Your task to perform on an android device: When is my next meeting? Image 0: 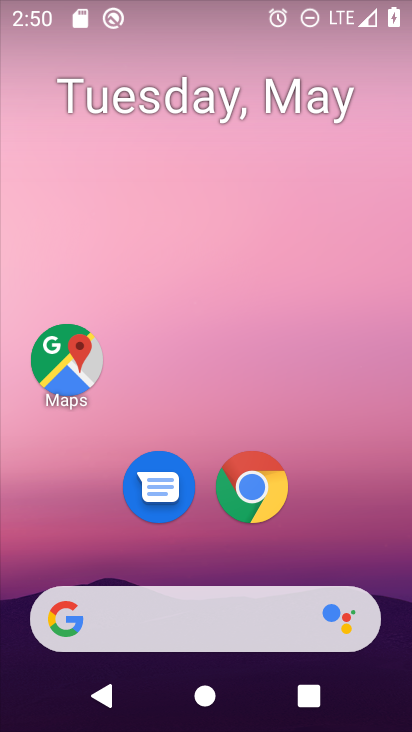
Step 0: drag from (35, 575) to (244, 172)
Your task to perform on an android device: When is my next meeting? Image 1: 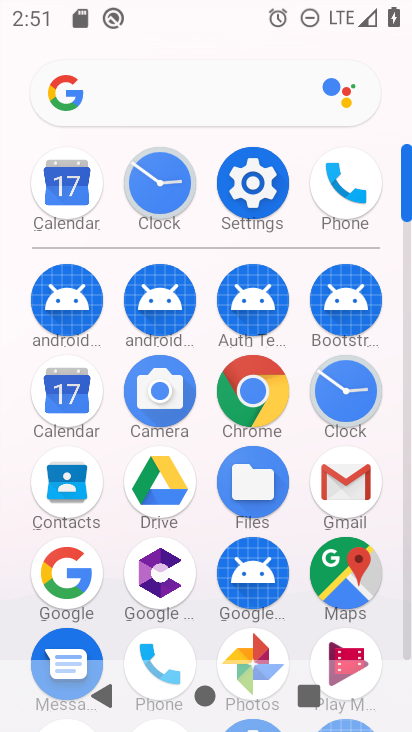
Step 1: click (242, 178)
Your task to perform on an android device: When is my next meeting? Image 2: 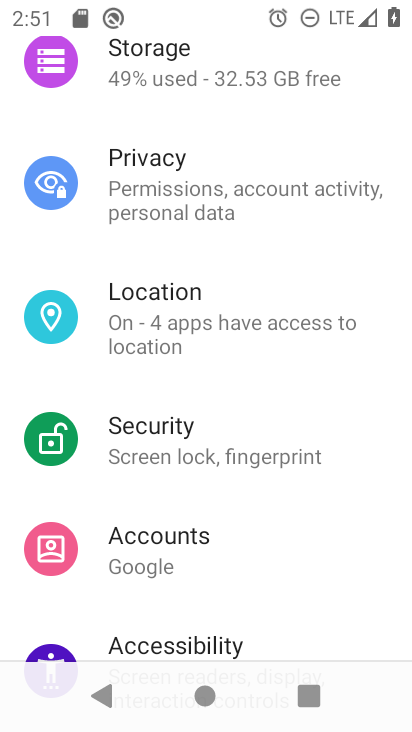
Step 2: press home button
Your task to perform on an android device: When is my next meeting? Image 3: 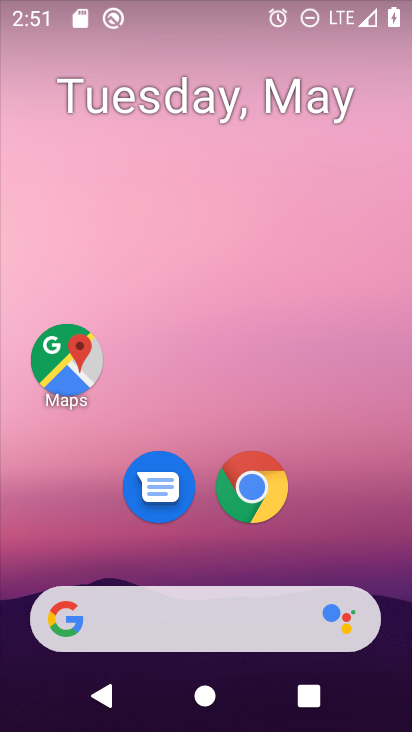
Step 3: drag from (105, 426) to (235, 181)
Your task to perform on an android device: When is my next meeting? Image 4: 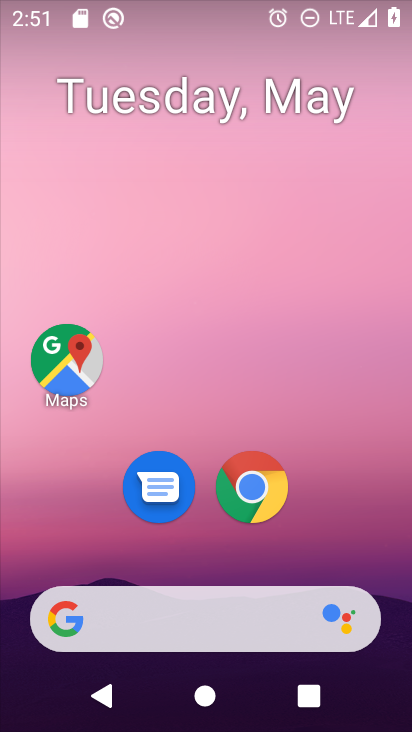
Step 4: drag from (80, 532) to (212, 186)
Your task to perform on an android device: When is my next meeting? Image 5: 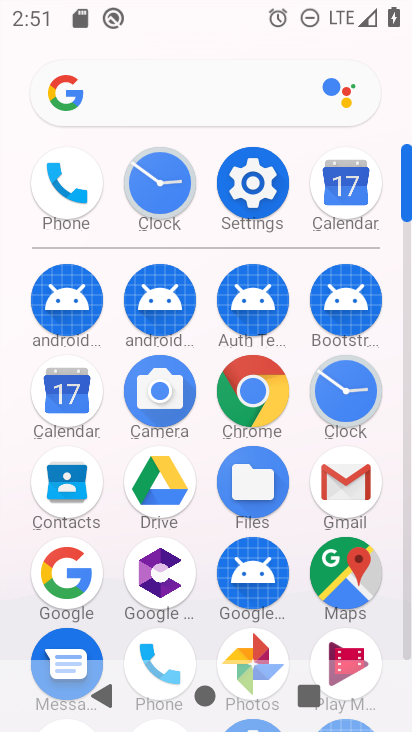
Step 5: click (332, 199)
Your task to perform on an android device: When is my next meeting? Image 6: 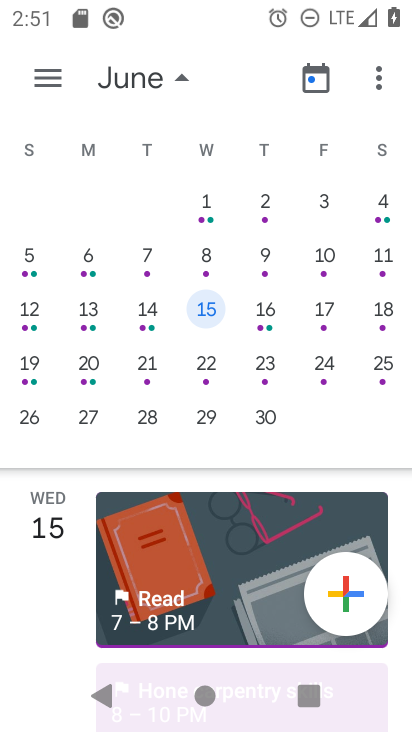
Step 6: click (261, 319)
Your task to perform on an android device: When is my next meeting? Image 7: 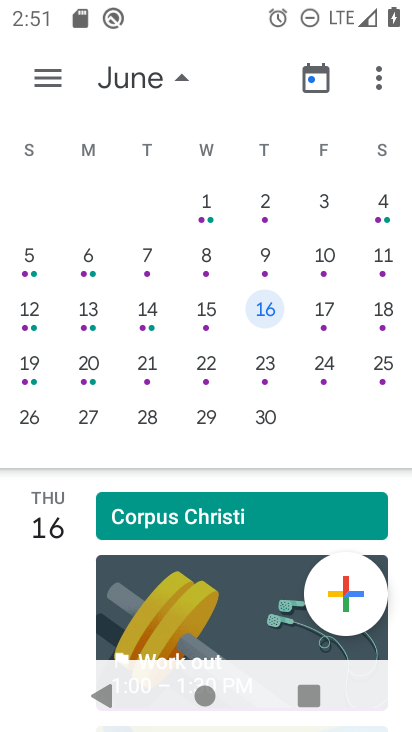
Step 7: task complete